Your task to perform on an android device: Open the calendar and show me this week's events? Image 0: 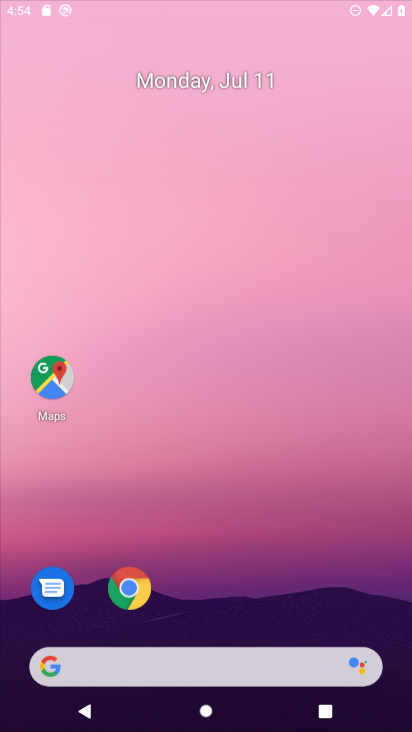
Step 0: press home button
Your task to perform on an android device: Open the calendar and show me this week's events? Image 1: 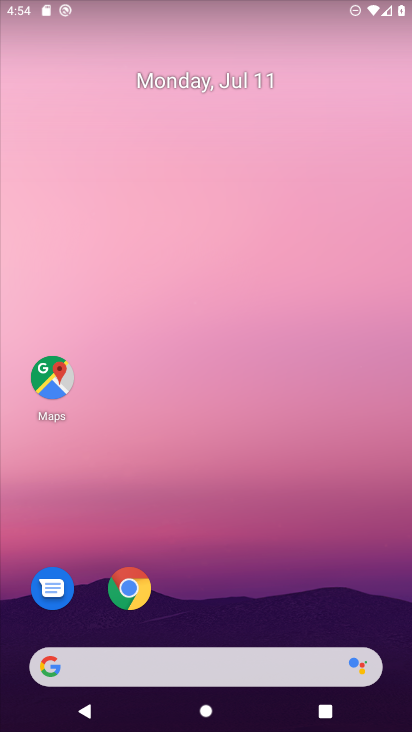
Step 1: drag from (285, 556) to (337, 31)
Your task to perform on an android device: Open the calendar and show me this week's events? Image 2: 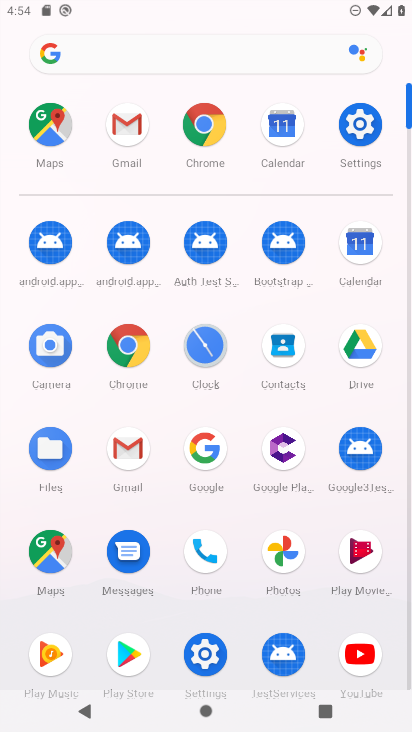
Step 2: click (362, 258)
Your task to perform on an android device: Open the calendar and show me this week's events? Image 3: 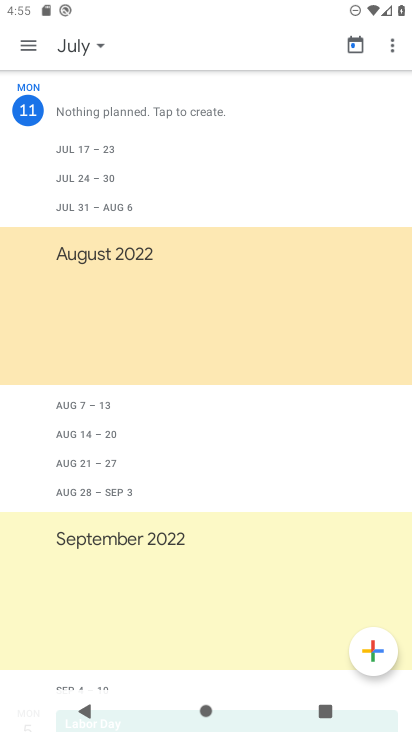
Step 3: task complete